Your task to perform on an android device: Open calendar and show me the first week of next month Image 0: 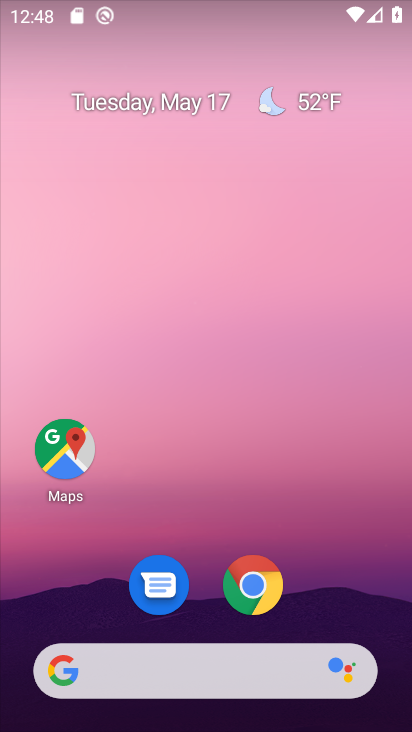
Step 0: drag from (294, 482) to (290, 10)
Your task to perform on an android device: Open calendar and show me the first week of next month Image 1: 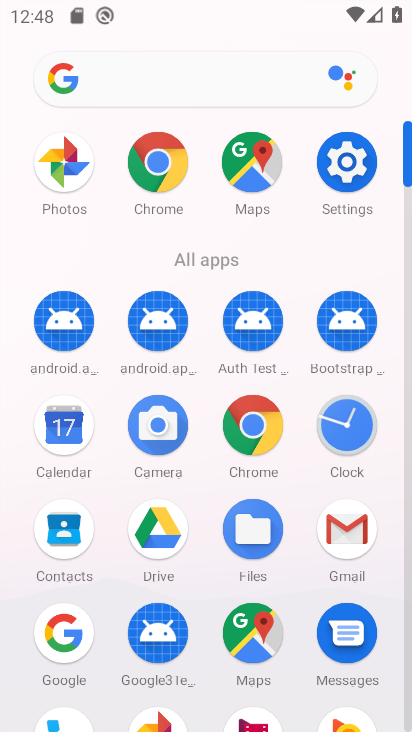
Step 1: click (56, 420)
Your task to perform on an android device: Open calendar and show me the first week of next month Image 2: 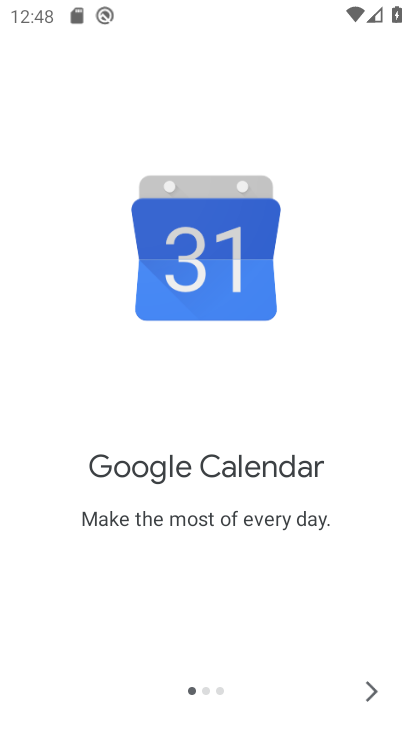
Step 2: click (372, 689)
Your task to perform on an android device: Open calendar and show me the first week of next month Image 3: 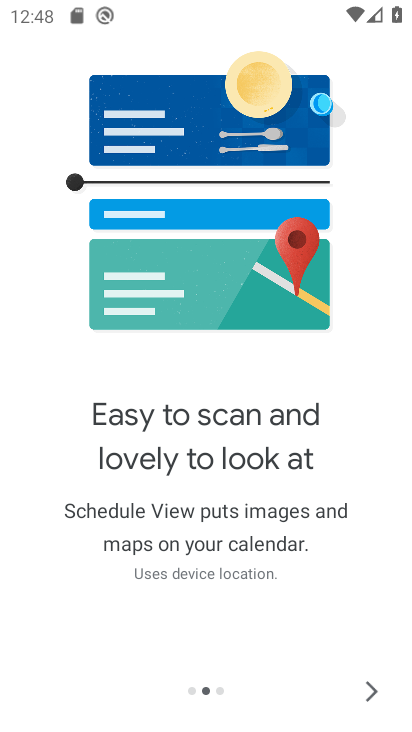
Step 3: click (372, 689)
Your task to perform on an android device: Open calendar and show me the first week of next month Image 4: 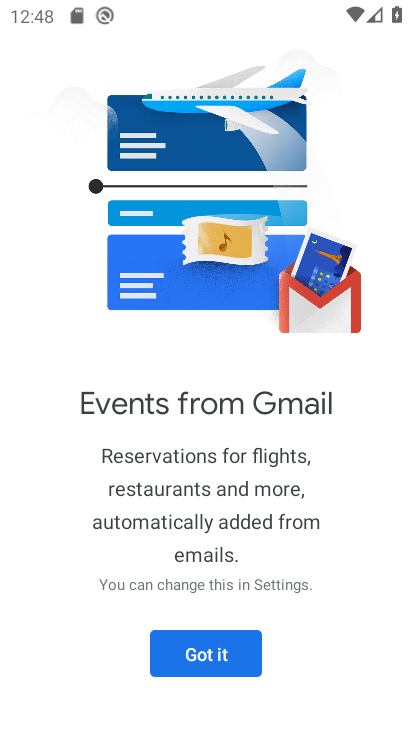
Step 4: click (252, 650)
Your task to perform on an android device: Open calendar and show me the first week of next month Image 5: 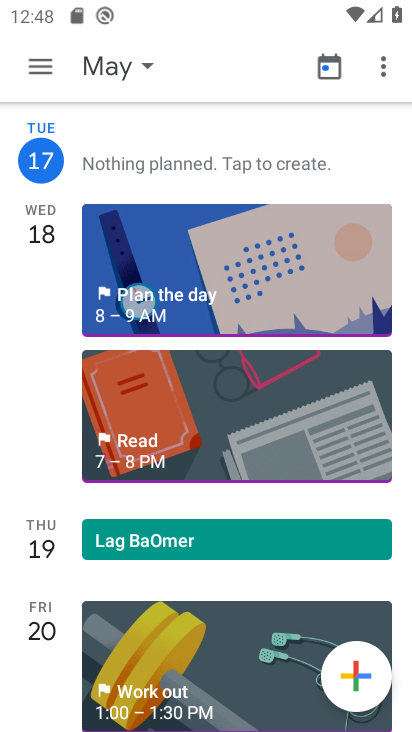
Step 5: click (30, 61)
Your task to perform on an android device: Open calendar and show me the first week of next month Image 6: 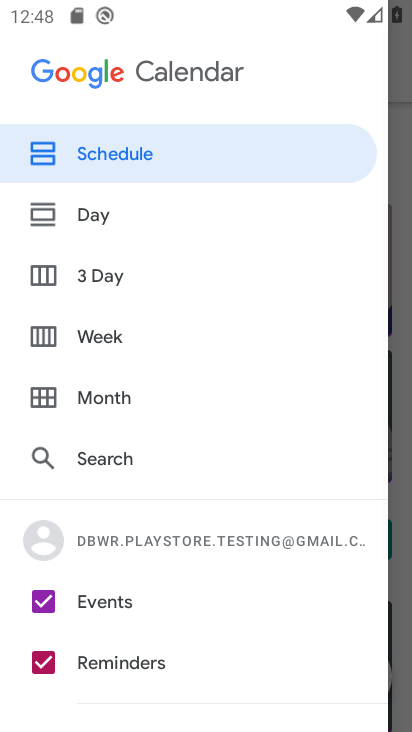
Step 6: click (97, 381)
Your task to perform on an android device: Open calendar and show me the first week of next month Image 7: 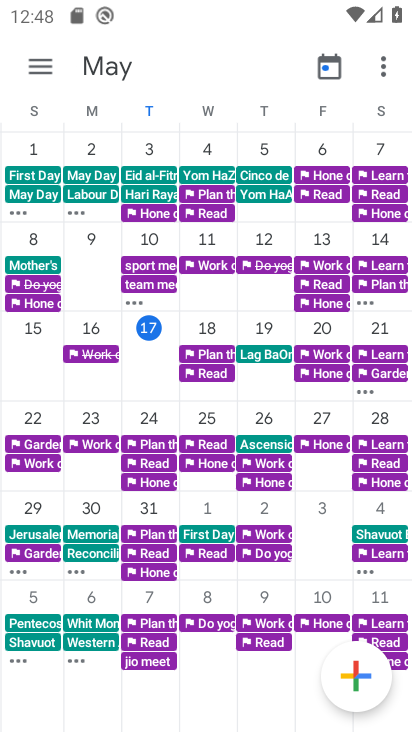
Step 7: click (44, 598)
Your task to perform on an android device: Open calendar and show me the first week of next month Image 8: 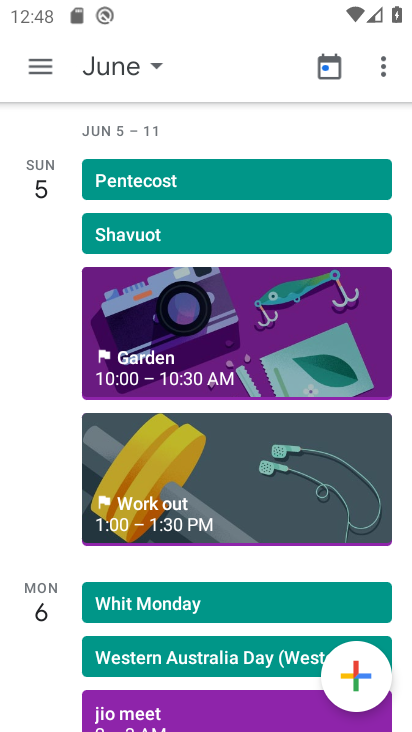
Step 8: click (44, 62)
Your task to perform on an android device: Open calendar and show me the first week of next month Image 9: 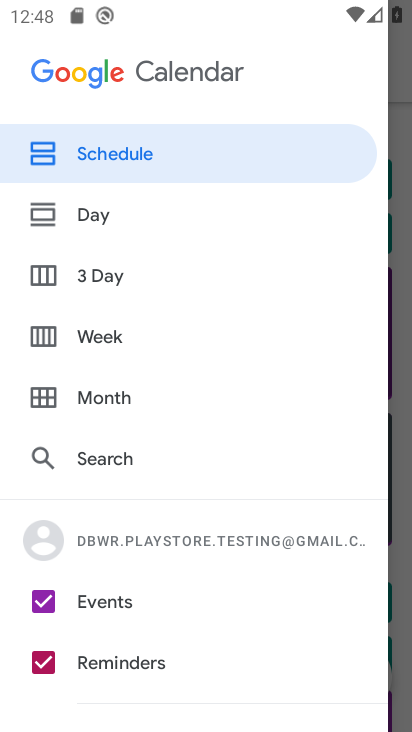
Step 9: click (44, 335)
Your task to perform on an android device: Open calendar and show me the first week of next month Image 10: 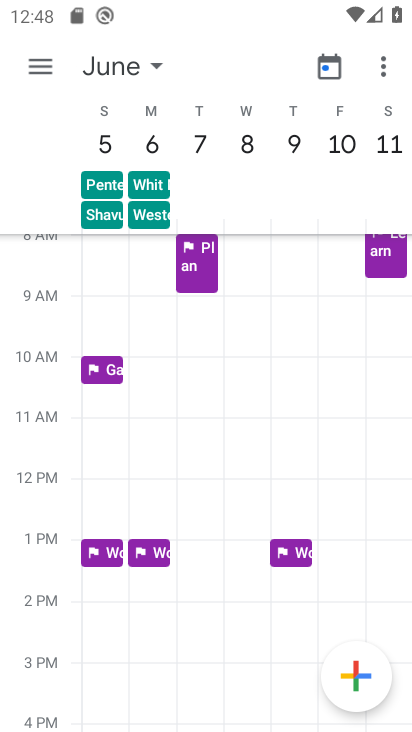
Step 10: task complete